Your task to perform on an android device: create a new album in the google photos Image 0: 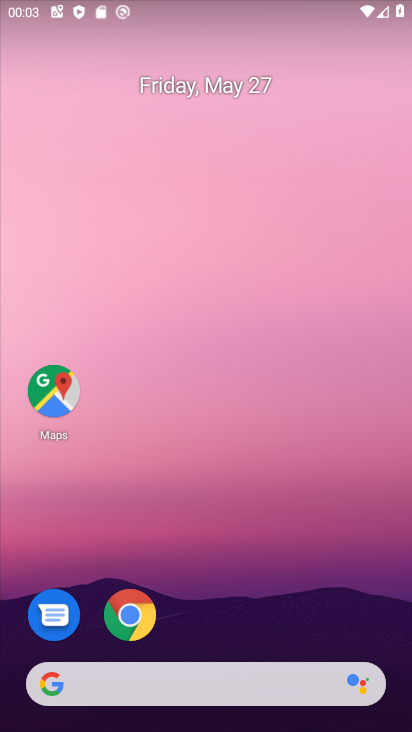
Step 0: drag from (272, 637) to (250, 1)
Your task to perform on an android device: create a new album in the google photos Image 1: 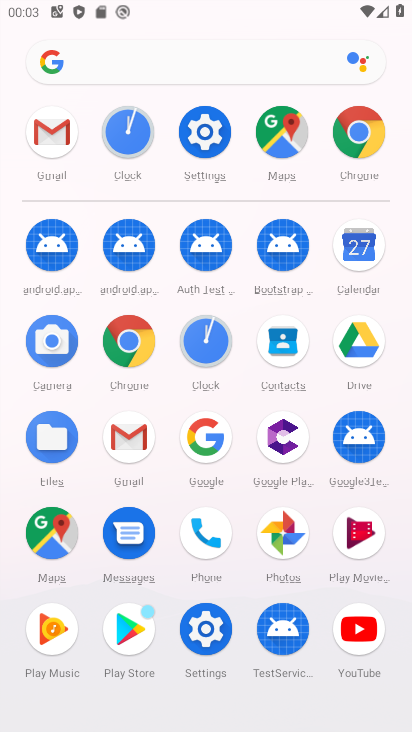
Step 1: click (275, 551)
Your task to perform on an android device: create a new album in the google photos Image 2: 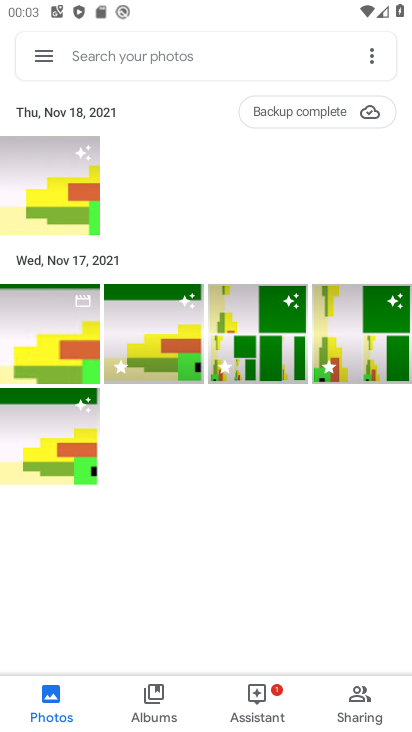
Step 2: click (160, 309)
Your task to perform on an android device: create a new album in the google photos Image 3: 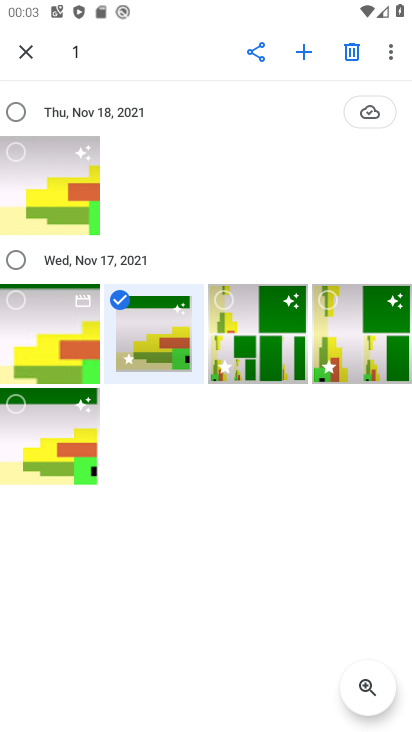
Step 3: drag from (79, 333) to (80, 155)
Your task to perform on an android device: create a new album in the google photos Image 4: 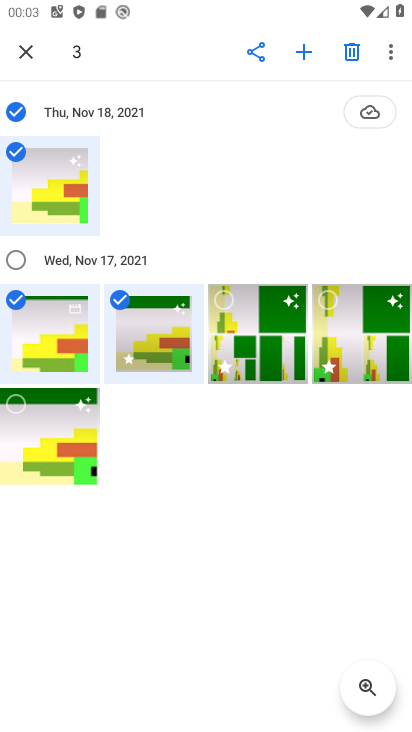
Step 4: click (286, 52)
Your task to perform on an android device: create a new album in the google photos Image 5: 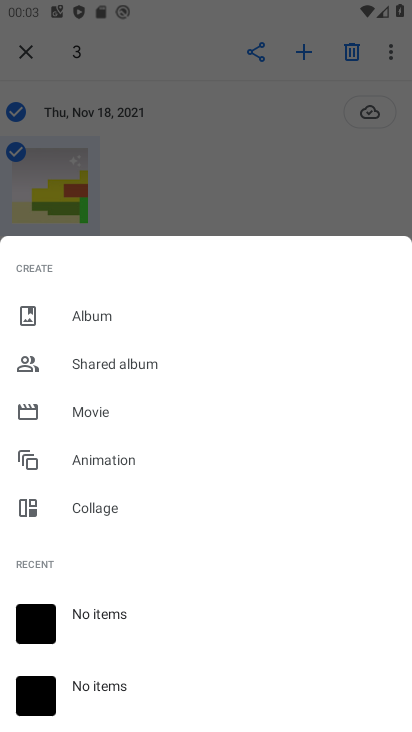
Step 5: click (118, 309)
Your task to perform on an android device: create a new album in the google photos Image 6: 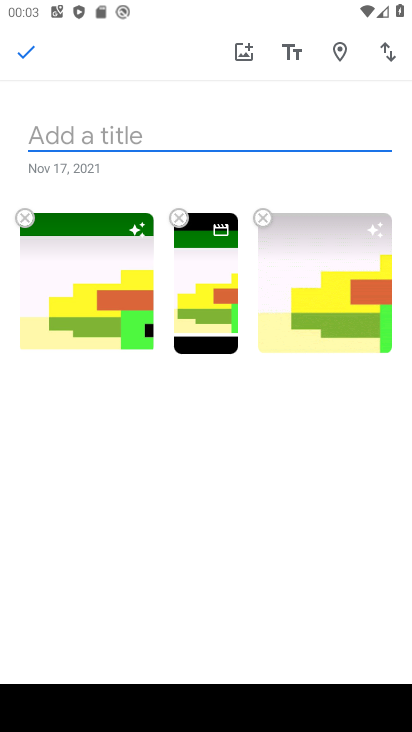
Step 6: type "fdhdh"
Your task to perform on an android device: create a new album in the google photos Image 7: 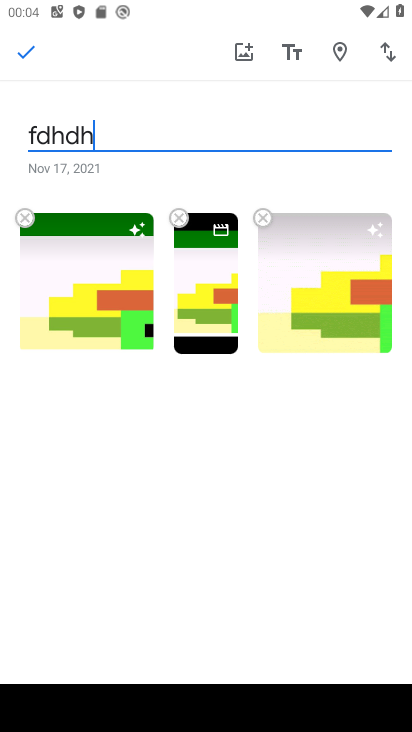
Step 7: click (27, 57)
Your task to perform on an android device: create a new album in the google photos Image 8: 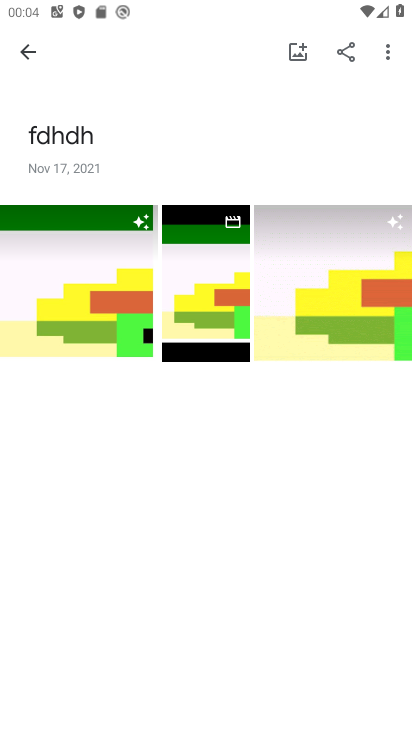
Step 8: task complete